Your task to perform on an android device: turn off translation in the chrome app Image 0: 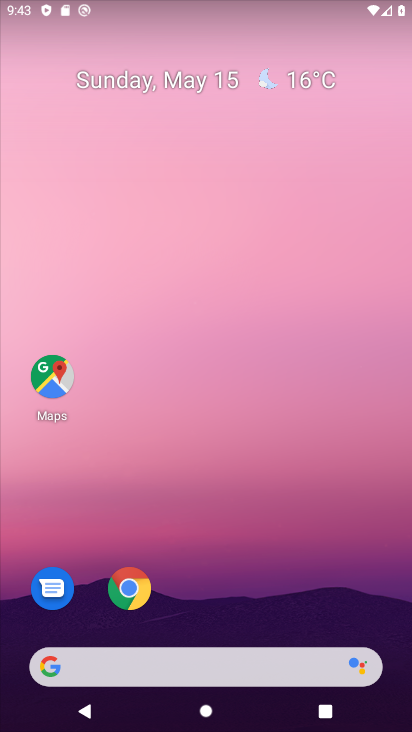
Step 0: click (153, 597)
Your task to perform on an android device: turn off translation in the chrome app Image 1: 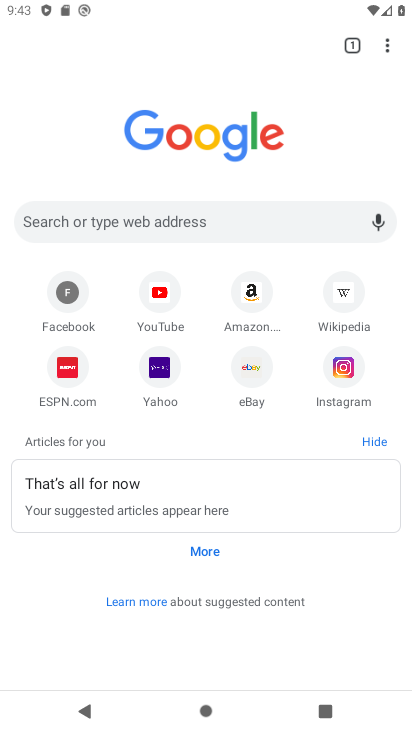
Step 1: click (387, 43)
Your task to perform on an android device: turn off translation in the chrome app Image 2: 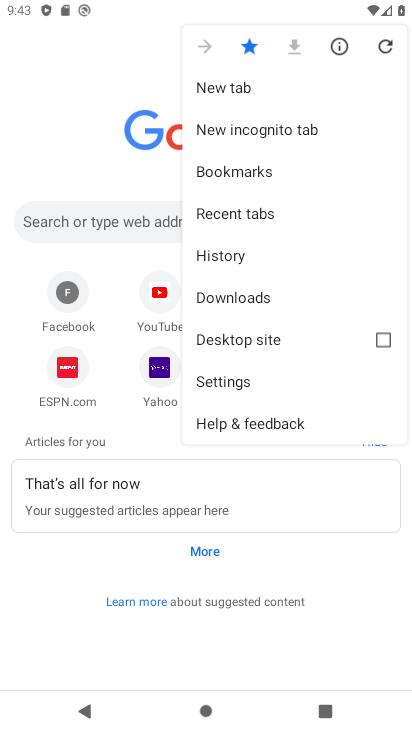
Step 2: click (225, 383)
Your task to perform on an android device: turn off translation in the chrome app Image 3: 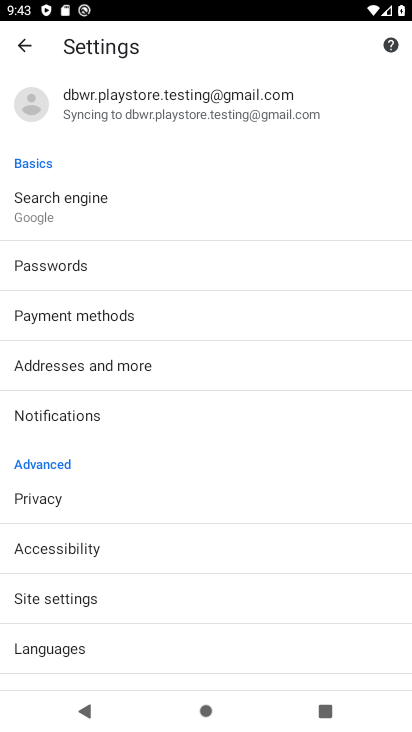
Step 3: click (72, 640)
Your task to perform on an android device: turn off translation in the chrome app Image 4: 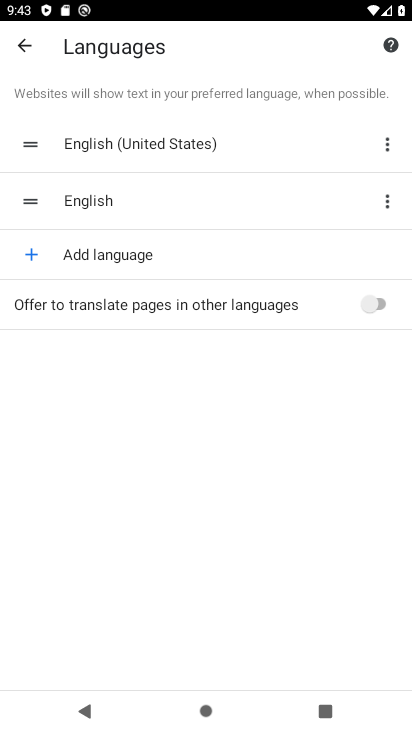
Step 4: task complete